Your task to perform on an android device: create a new album in the google photos Image 0: 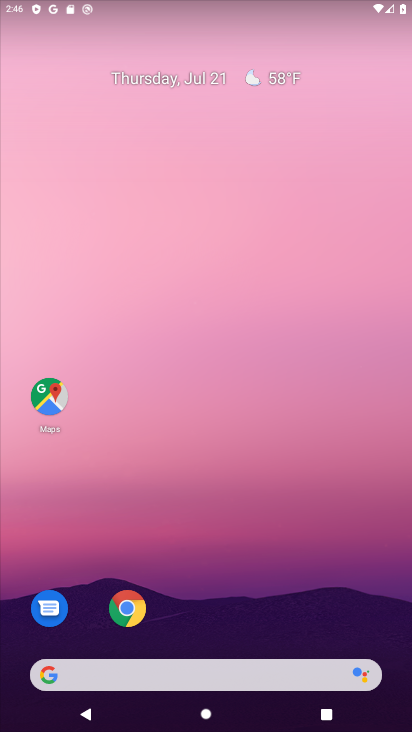
Step 0: press home button
Your task to perform on an android device: create a new album in the google photos Image 1: 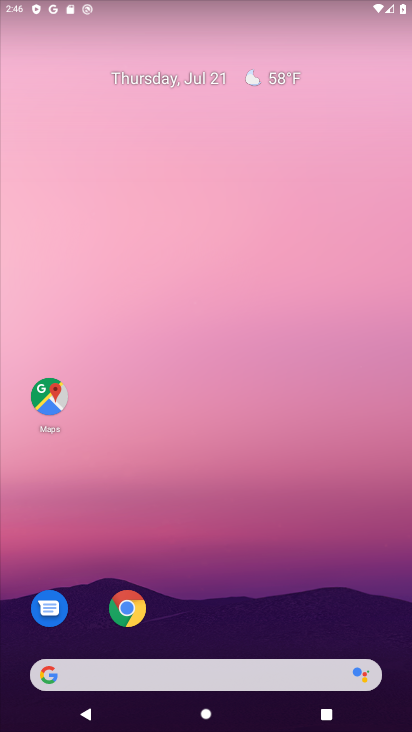
Step 1: drag from (212, 633) to (204, 40)
Your task to perform on an android device: create a new album in the google photos Image 2: 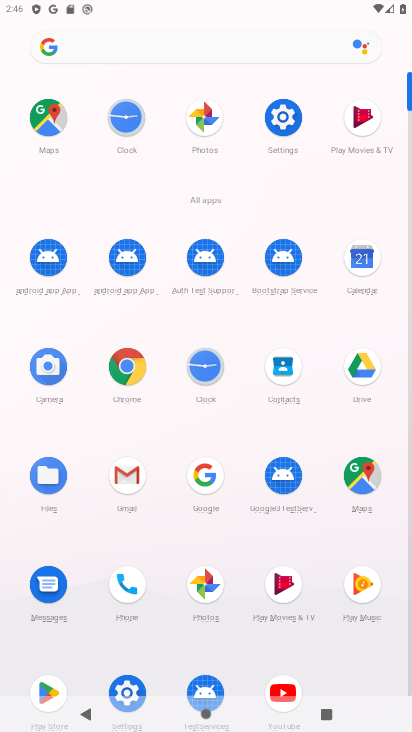
Step 2: click (202, 581)
Your task to perform on an android device: create a new album in the google photos Image 3: 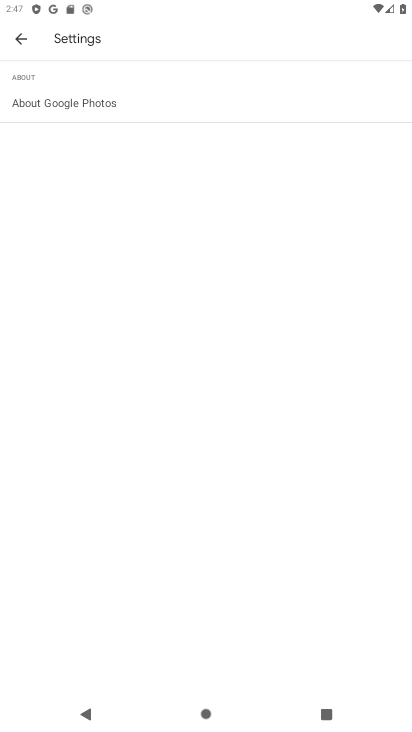
Step 3: click (16, 40)
Your task to perform on an android device: create a new album in the google photos Image 4: 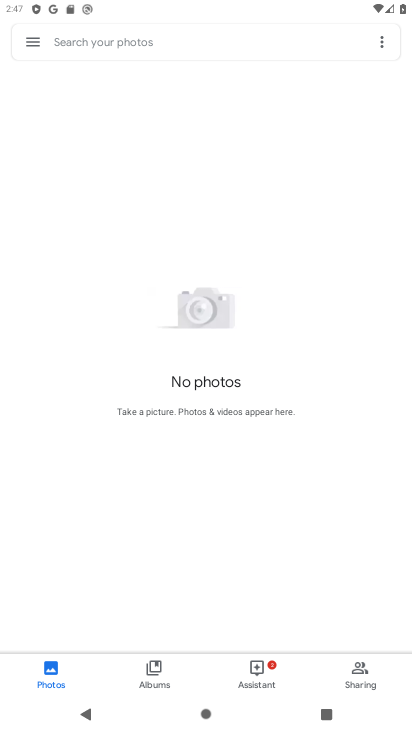
Step 4: click (151, 669)
Your task to perform on an android device: create a new album in the google photos Image 5: 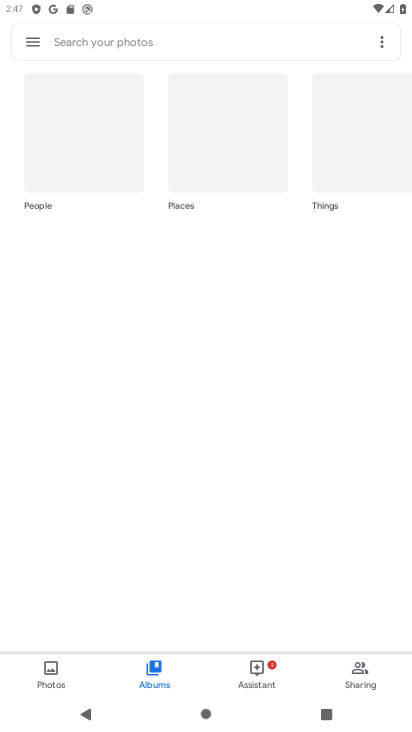
Step 5: click (376, 41)
Your task to perform on an android device: create a new album in the google photos Image 6: 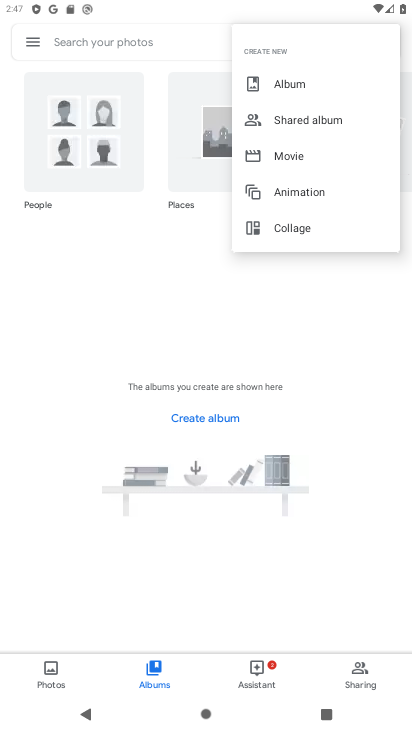
Step 6: click (301, 80)
Your task to perform on an android device: create a new album in the google photos Image 7: 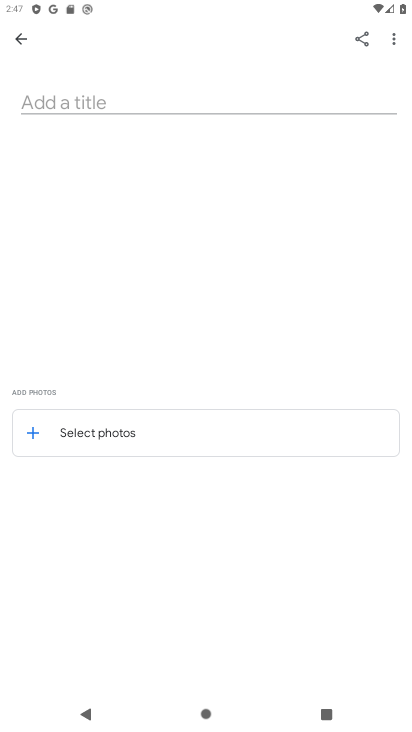
Step 7: click (51, 434)
Your task to perform on an android device: create a new album in the google photos Image 8: 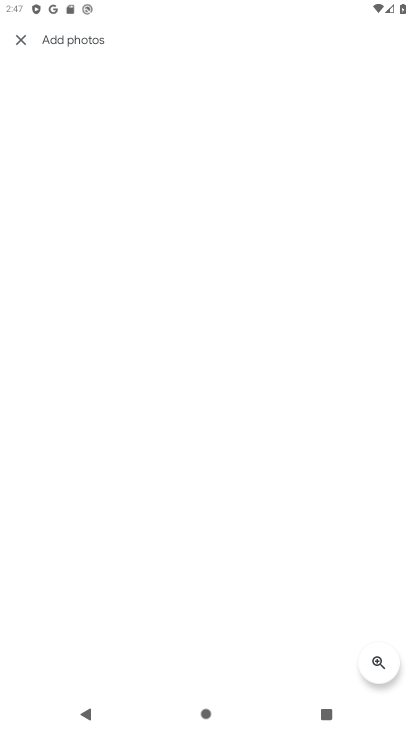
Step 8: task complete